Your task to perform on an android device: open device folders in google photos Image 0: 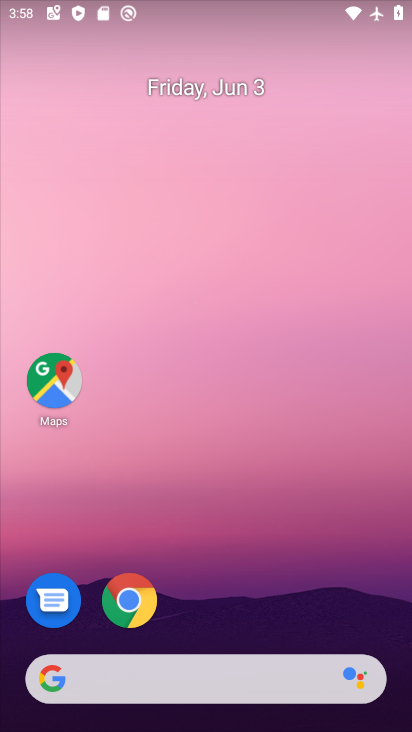
Step 0: drag from (214, 591) to (234, 1)
Your task to perform on an android device: open device folders in google photos Image 1: 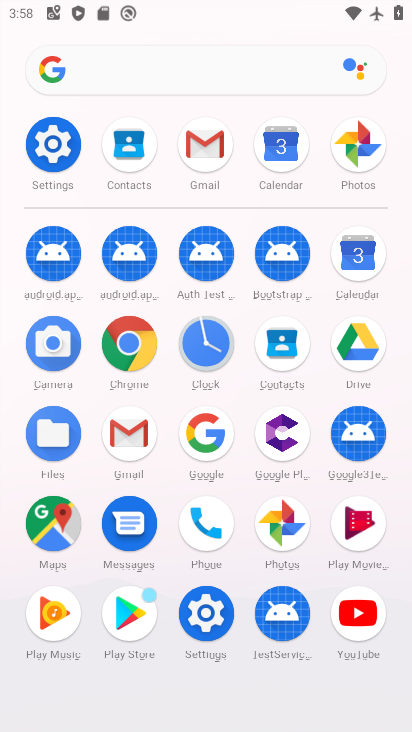
Step 1: click (274, 533)
Your task to perform on an android device: open device folders in google photos Image 2: 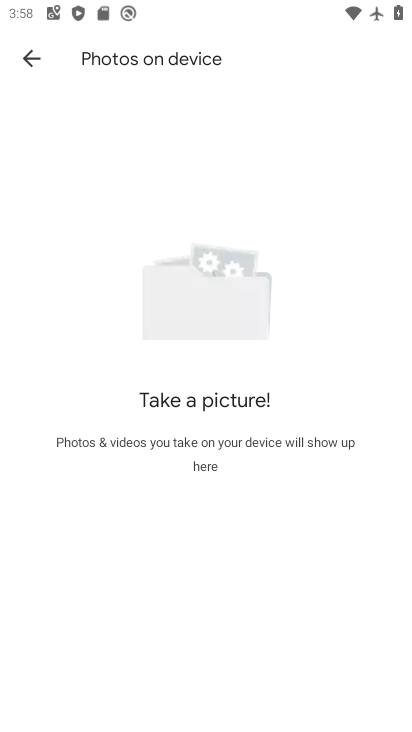
Step 2: click (26, 59)
Your task to perform on an android device: open device folders in google photos Image 3: 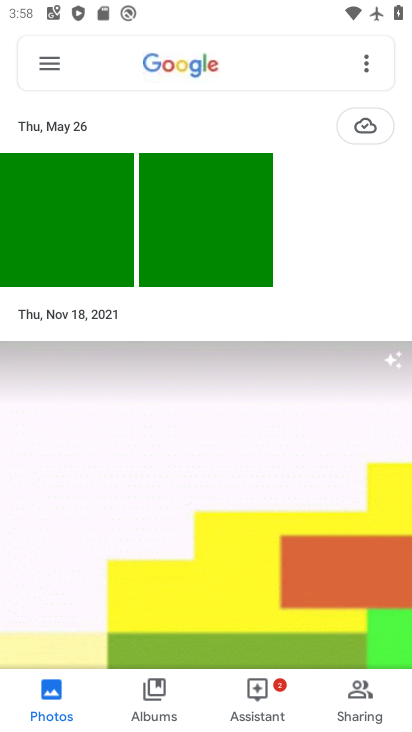
Step 3: click (42, 62)
Your task to perform on an android device: open device folders in google photos Image 4: 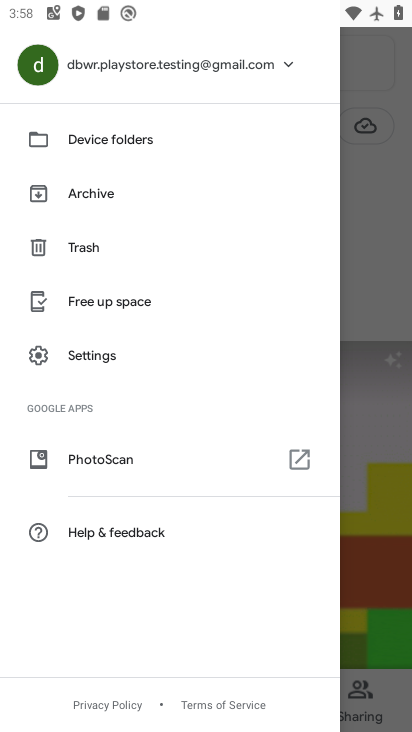
Step 4: click (130, 144)
Your task to perform on an android device: open device folders in google photos Image 5: 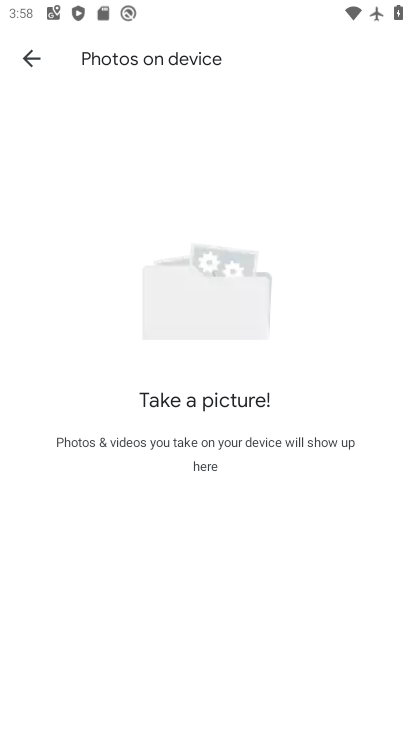
Step 5: task complete